Your task to perform on an android device: Open Google Maps and go to "Timeline" Image 0: 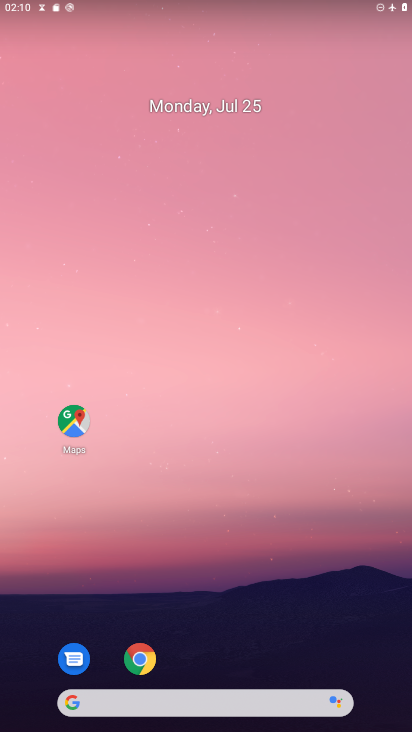
Step 0: drag from (239, 660) to (243, 204)
Your task to perform on an android device: Open Google Maps and go to "Timeline" Image 1: 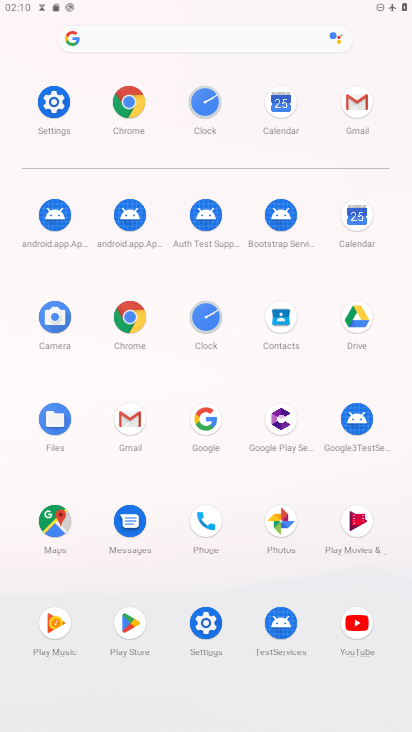
Step 1: click (59, 510)
Your task to perform on an android device: Open Google Maps and go to "Timeline" Image 2: 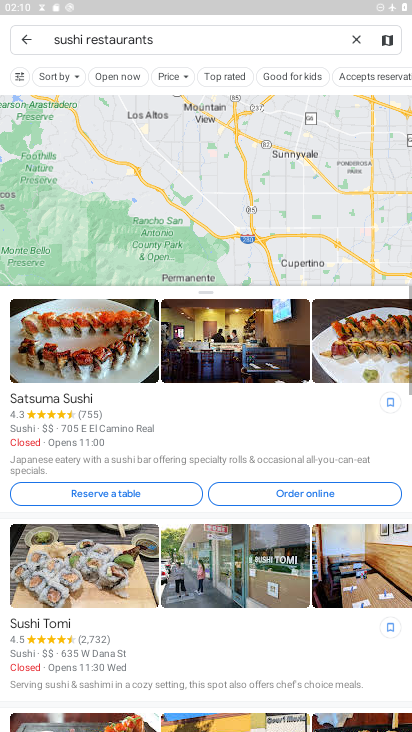
Step 2: click (357, 38)
Your task to perform on an android device: Open Google Maps and go to "Timeline" Image 3: 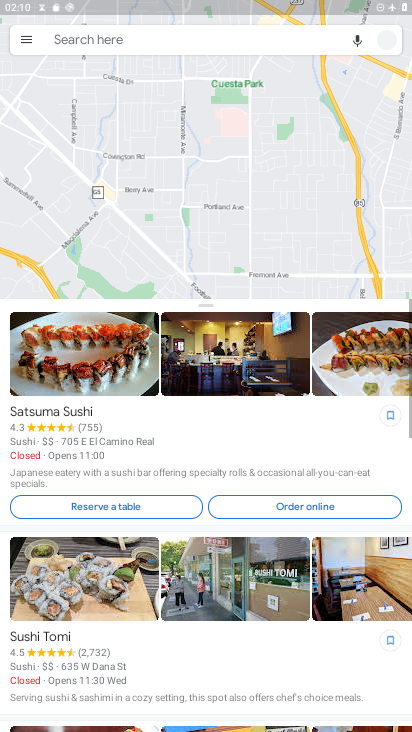
Step 3: click (24, 41)
Your task to perform on an android device: Open Google Maps and go to "Timeline" Image 4: 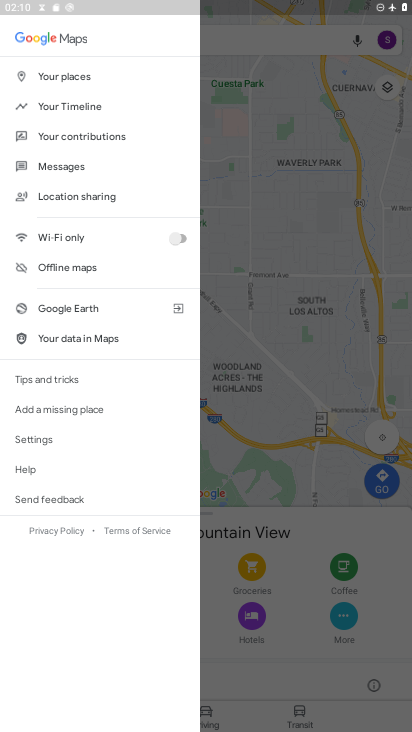
Step 4: click (66, 104)
Your task to perform on an android device: Open Google Maps and go to "Timeline" Image 5: 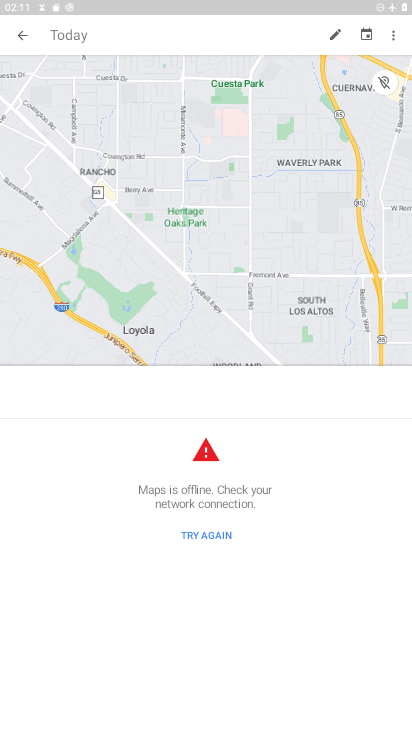
Step 5: task complete